Your task to perform on an android device: turn off translation in the chrome app Image 0: 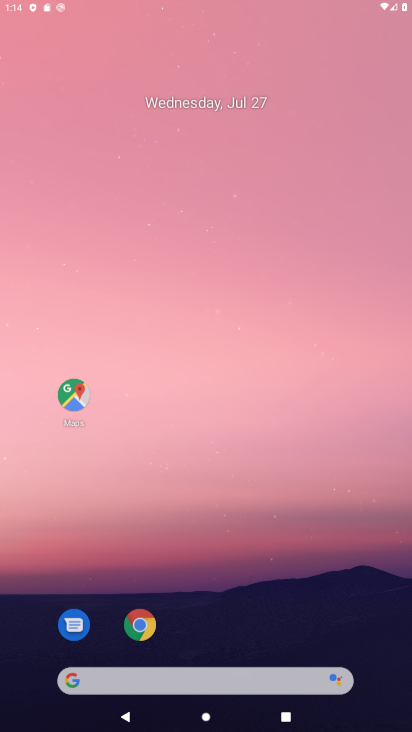
Step 0: press home button
Your task to perform on an android device: turn off translation in the chrome app Image 1: 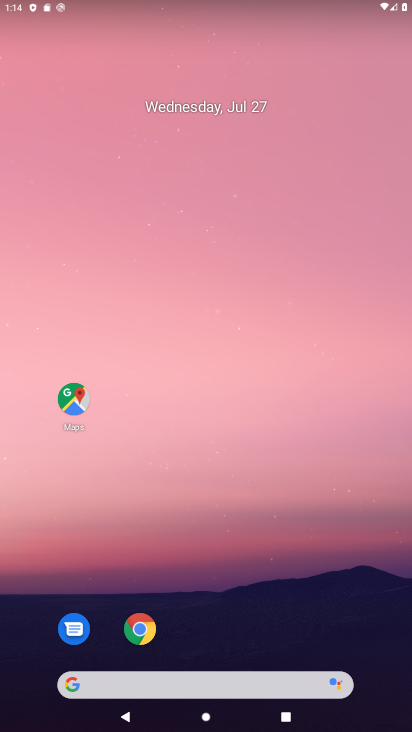
Step 1: drag from (233, 645) to (241, 54)
Your task to perform on an android device: turn off translation in the chrome app Image 2: 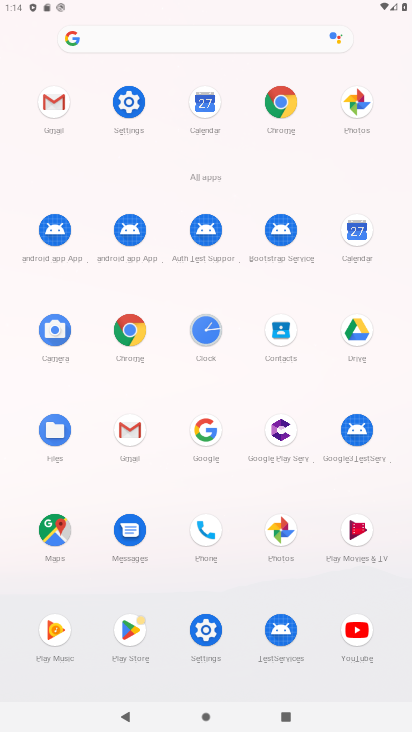
Step 2: click (281, 108)
Your task to perform on an android device: turn off translation in the chrome app Image 3: 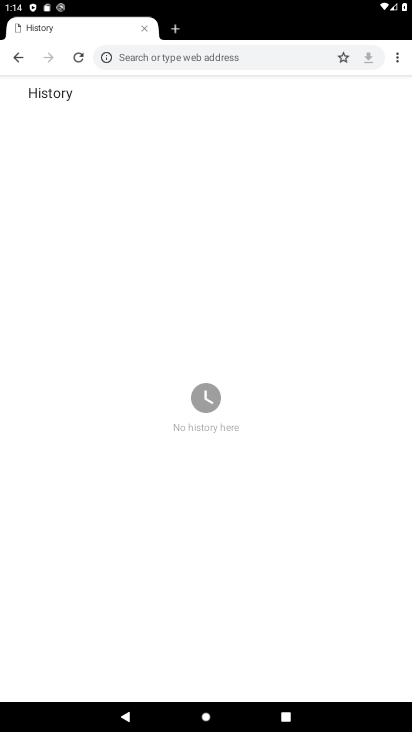
Step 3: drag from (397, 58) to (279, 258)
Your task to perform on an android device: turn off translation in the chrome app Image 4: 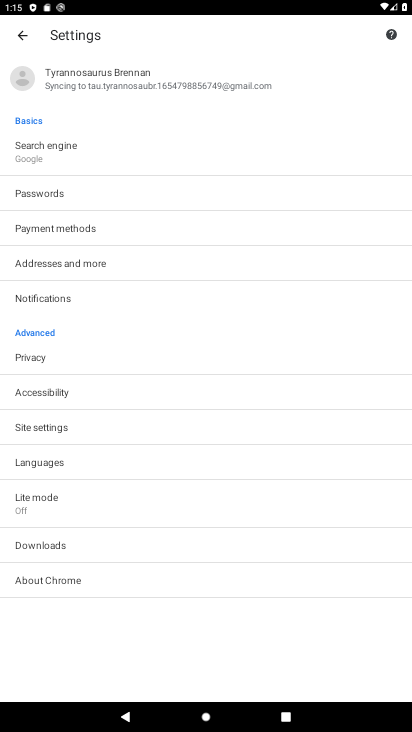
Step 4: click (53, 464)
Your task to perform on an android device: turn off translation in the chrome app Image 5: 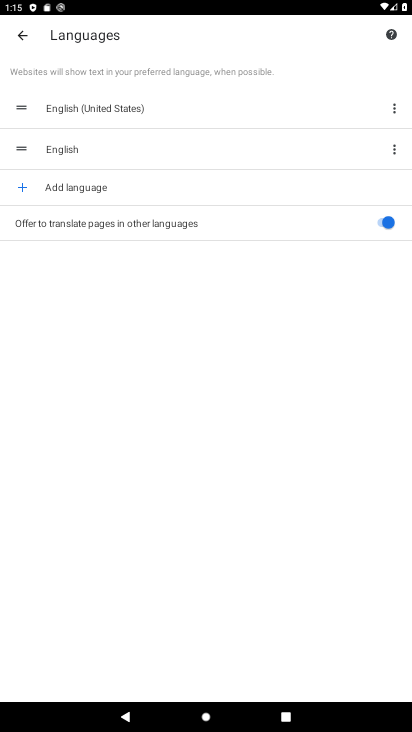
Step 5: click (386, 221)
Your task to perform on an android device: turn off translation in the chrome app Image 6: 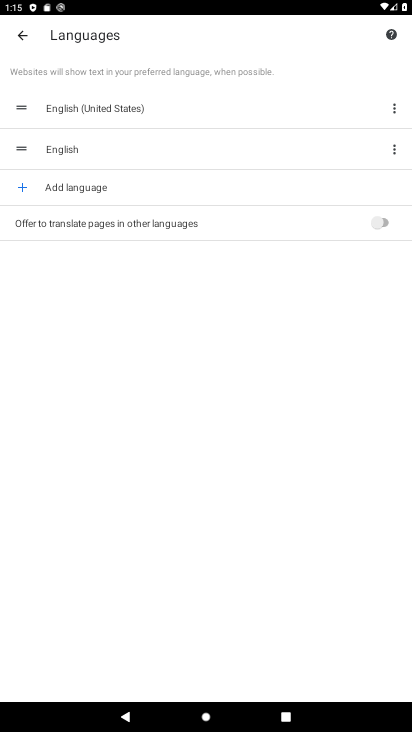
Step 6: task complete